Your task to perform on an android device: turn pop-ups off in chrome Image 0: 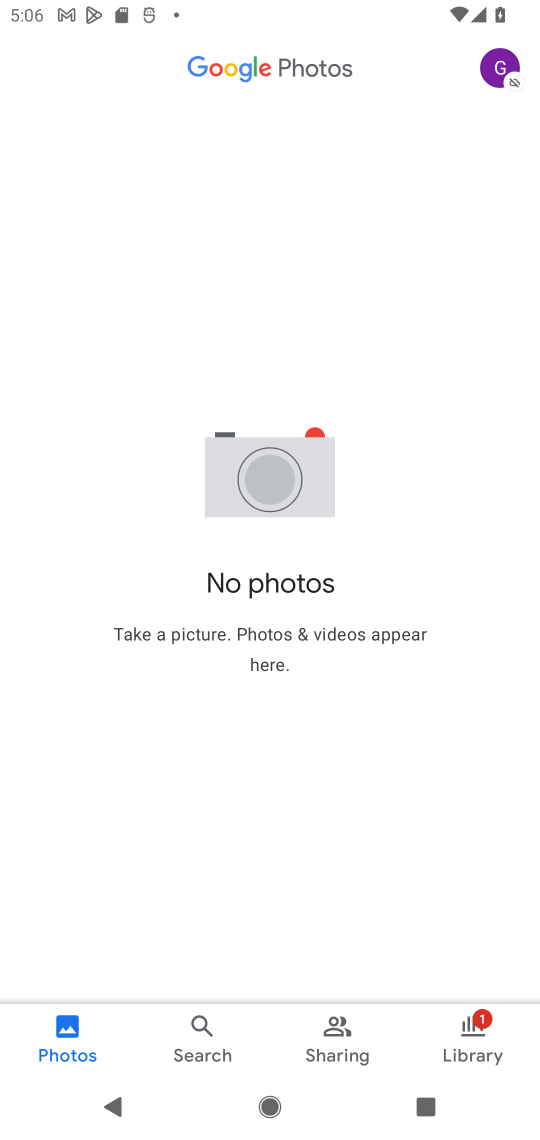
Step 0: press home button
Your task to perform on an android device: turn pop-ups off in chrome Image 1: 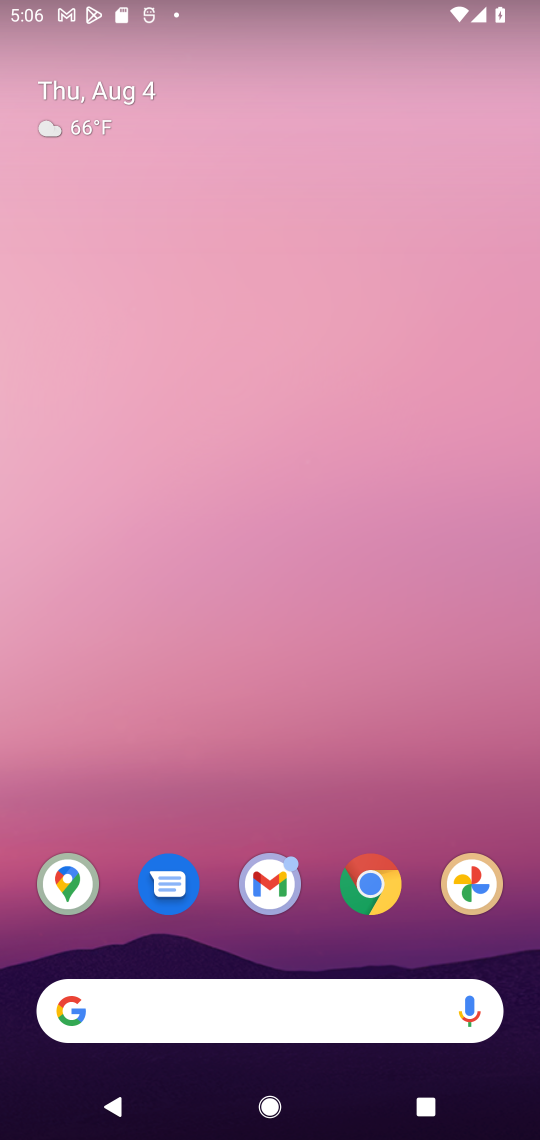
Step 1: click (402, 893)
Your task to perform on an android device: turn pop-ups off in chrome Image 2: 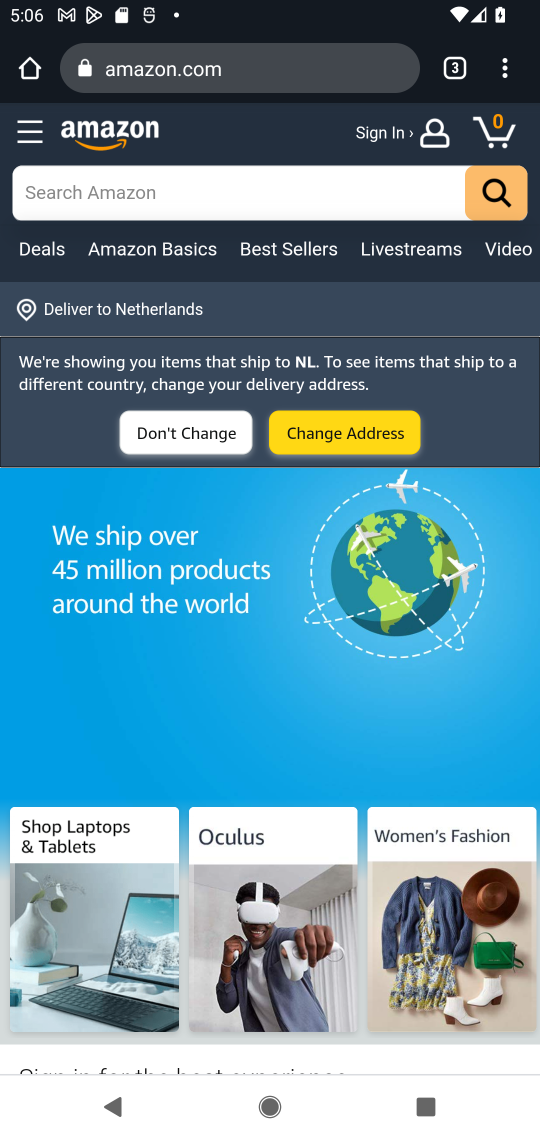
Step 2: click (495, 80)
Your task to perform on an android device: turn pop-ups off in chrome Image 3: 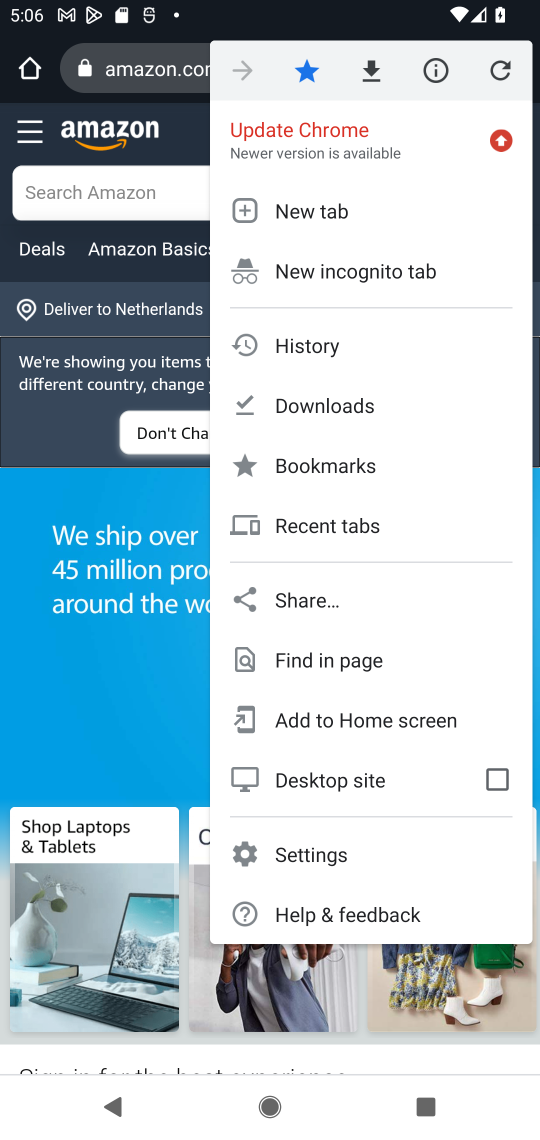
Step 3: click (320, 843)
Your task to perform on an android device: turn pop-ups off in chrome Image 4: 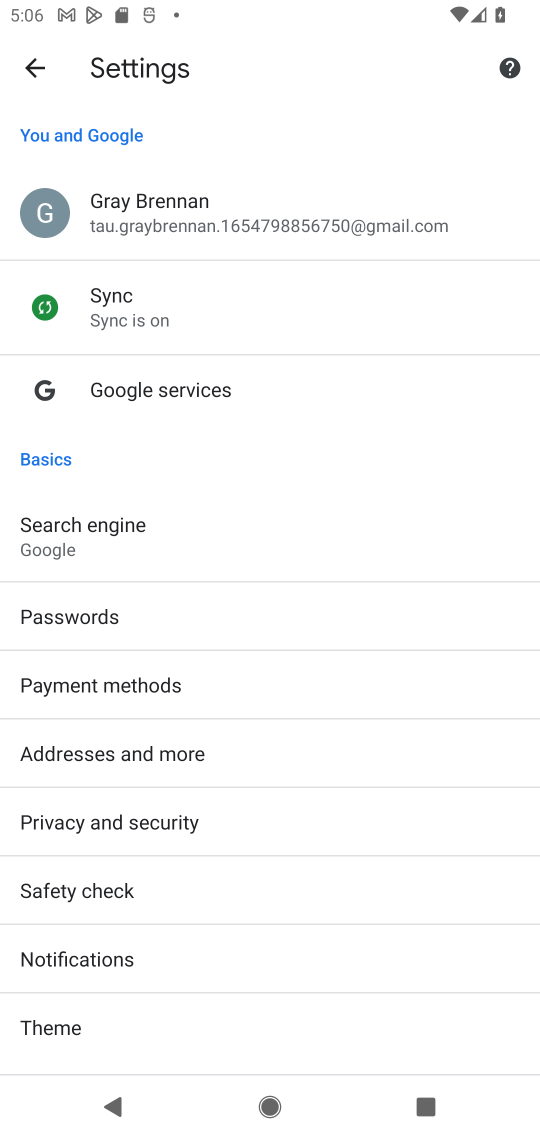
Step 4: task complete